Your task to perform on an android device: toggle sleep mode Image 0: 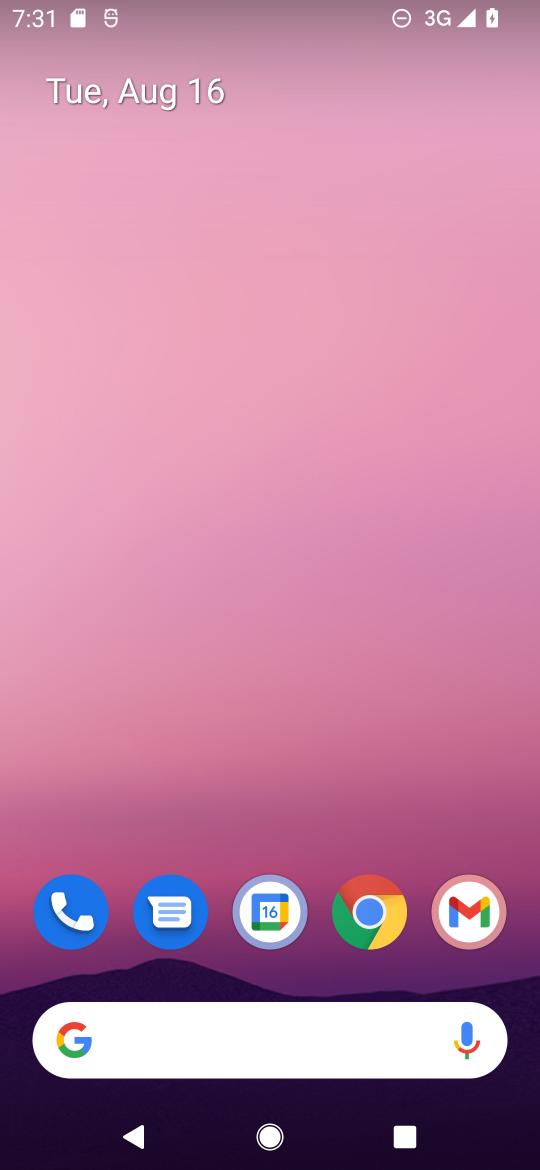
Step 0: drag from (425, 980) to (406, 151)
Your task to perform on an android device: toggle sleep mode Image 1: 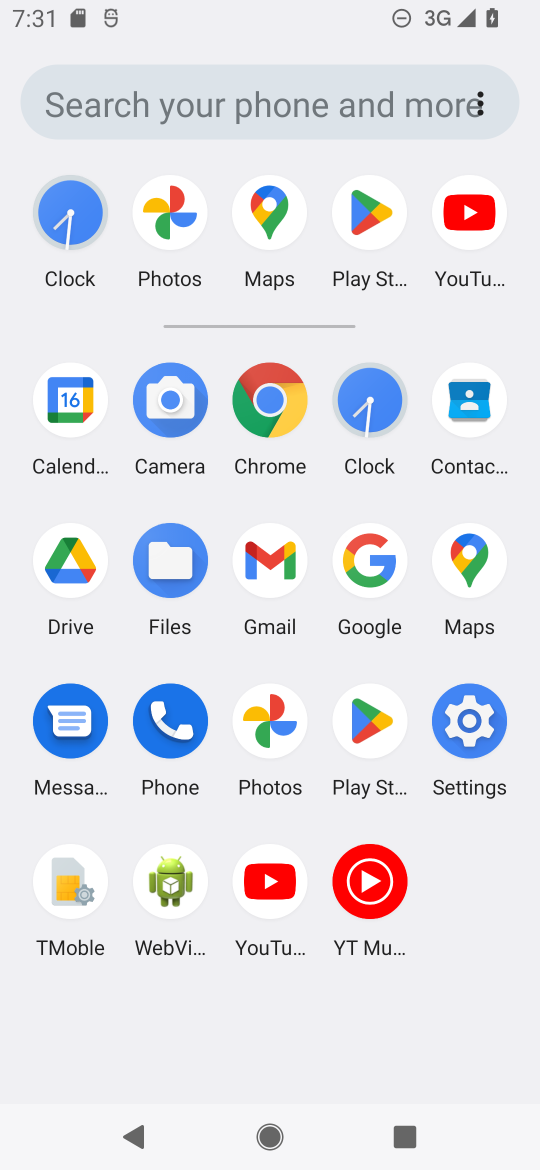
Step 1: click (472, 722)
Your task to perform on an android device: toggle sleep mode Image 2: 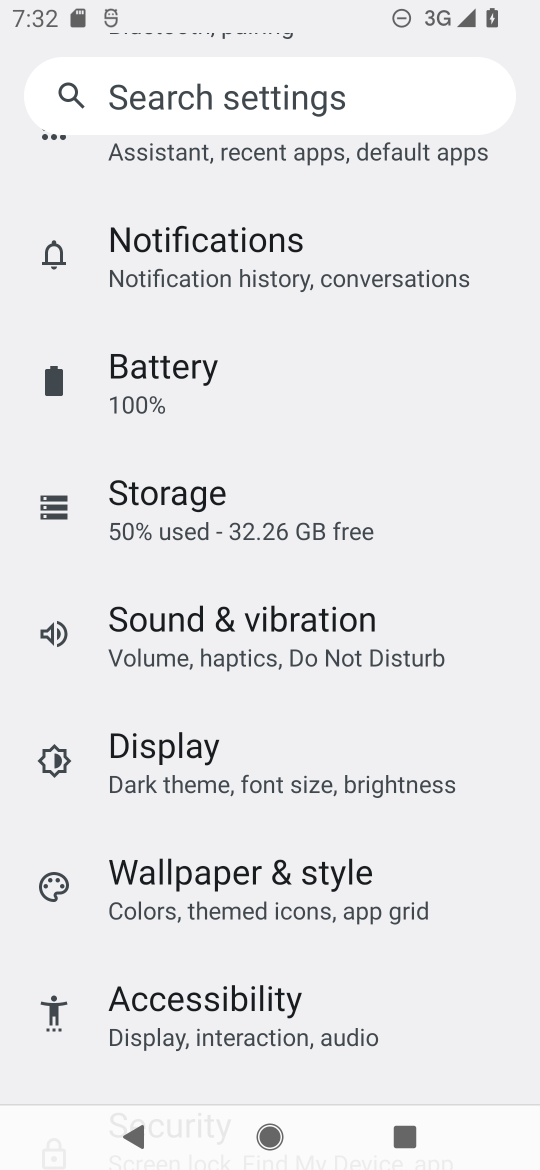
Step 2: drag from (428, 404) to (436, 759)
Your task to perform on an android device: toggle sleep mode Image 3: 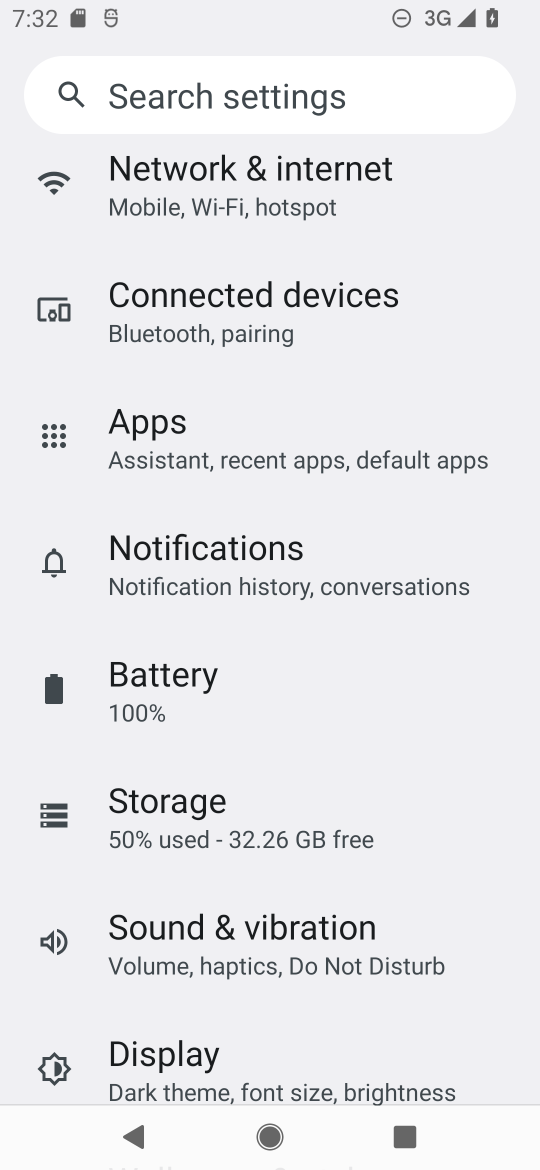
Step 3: drag from (385, 451) to (417, 282)
Your task to perform on an android device: toggle sleep mode Image 4: 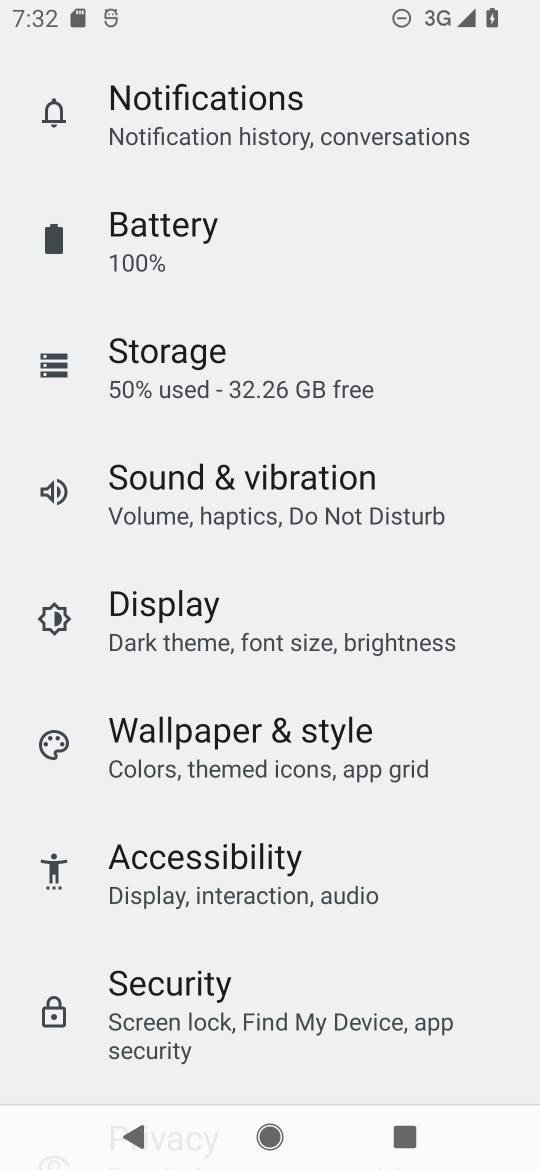
Step 4: click (154, 626)
Your task to perform on an android device: toggle sleep mode Image 5: 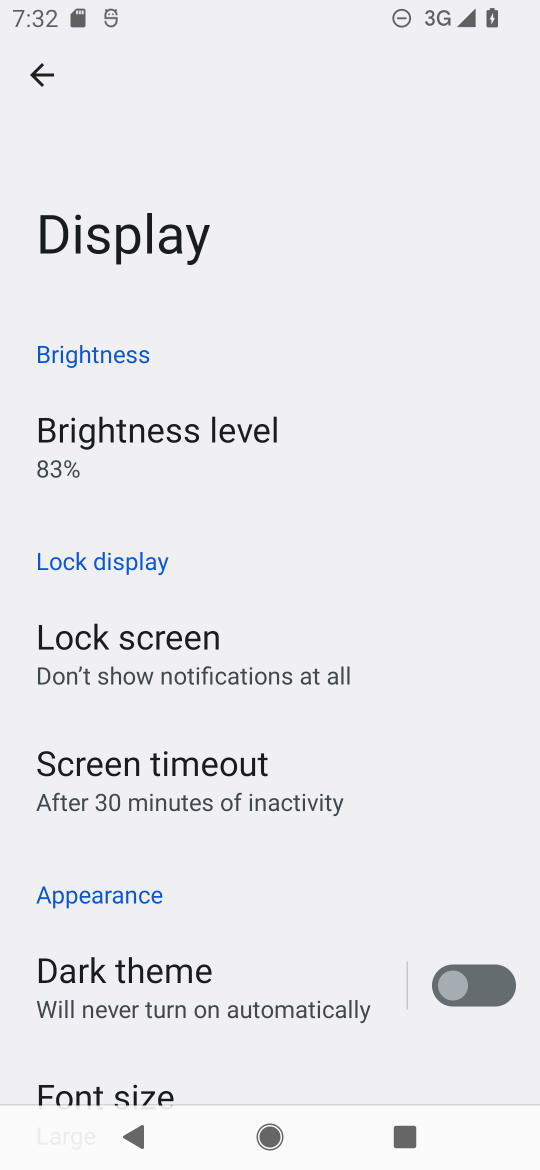
Step 5: task complete